Your task to perform on an android device: Search for sushi restaurants on Maps Image 0: 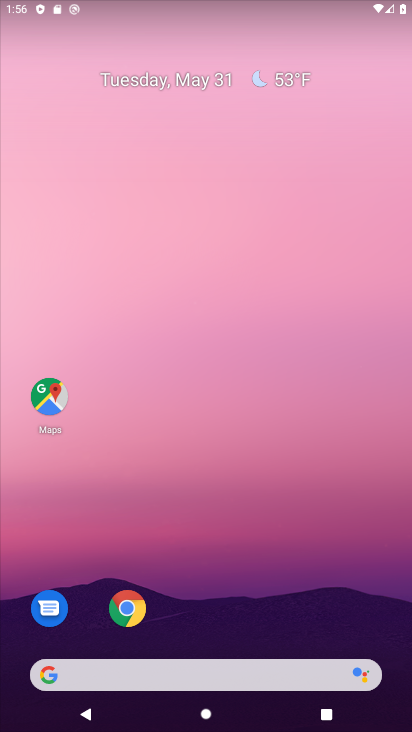
Step 0: click (43, 407)
Your task to perform on an android device: Search for sushi restaurants on Maps Image 1: 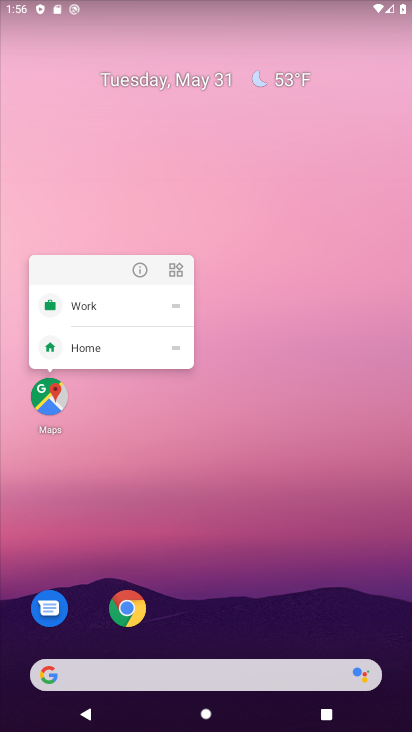
Step 1: click (59, 384)
Your task to perform on an android device: Search for sushi restaurants on Maps Image 2: 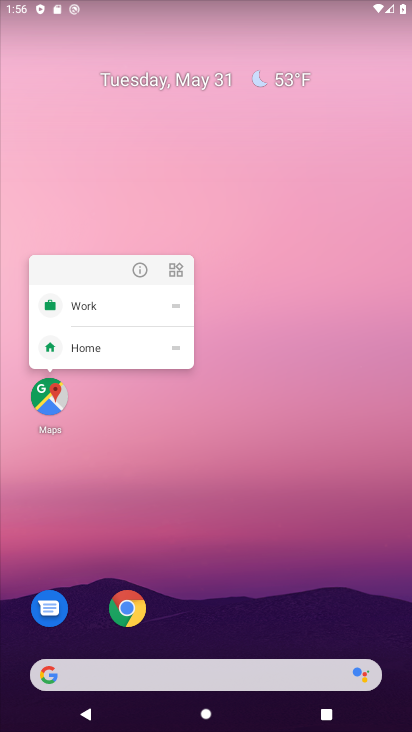
Step 2: click (48, 405)
Your task to perform on an android device: Search for sushi restaurants on Maps Image 3: 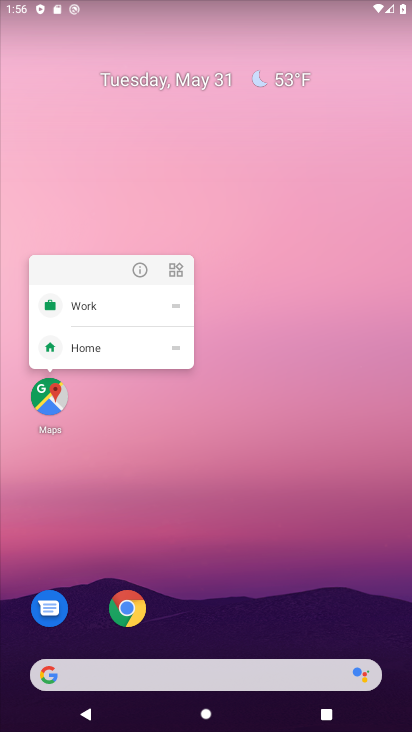
Step 3: click (51, 395)
Your task to perform on an android device: Search for sushi restaurants on Maps Image 4: 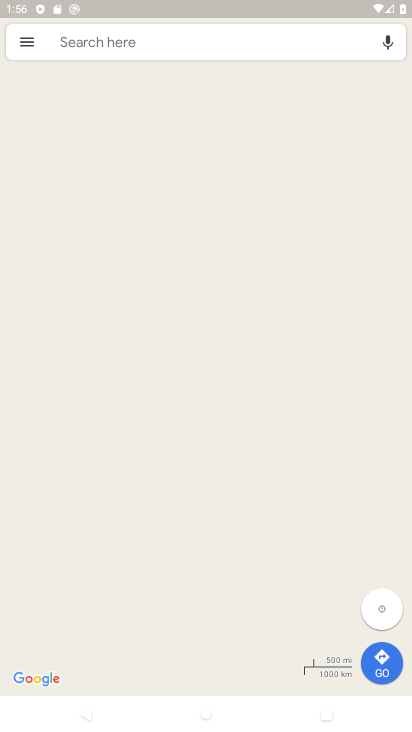
Step 4: click (179, 41)
Your task to perform on an android device: Search for sushi restaurants on Maps Image 5: 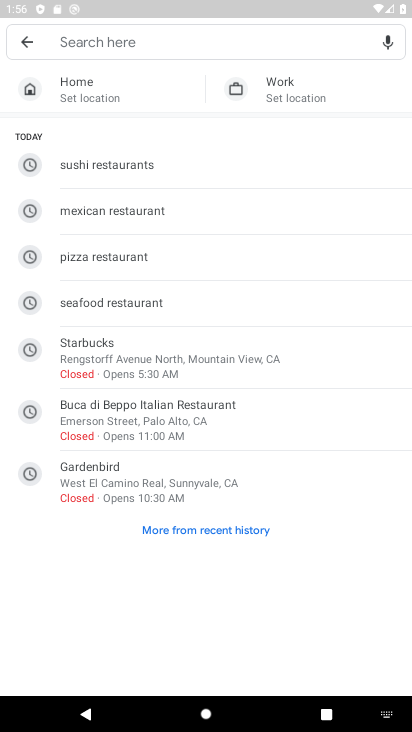
Step 5: click (130, 162)
Your task to perform on an android device: Search for sushi restaurants on Maps Image 6: 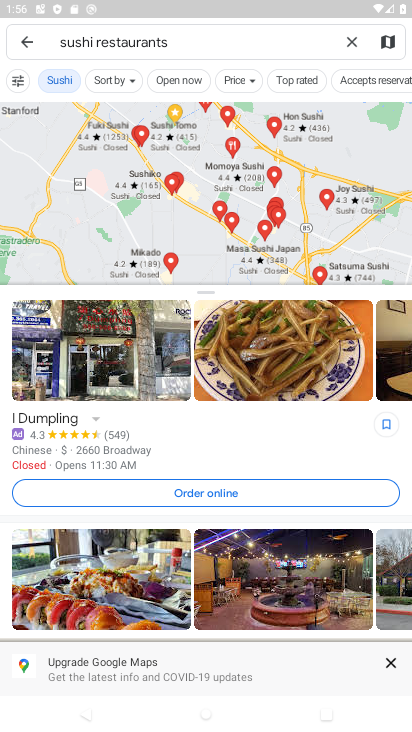
Step 6: task complete